Your task to perform on an android device: Search for vegetarian restaurants on Maps Image 0: 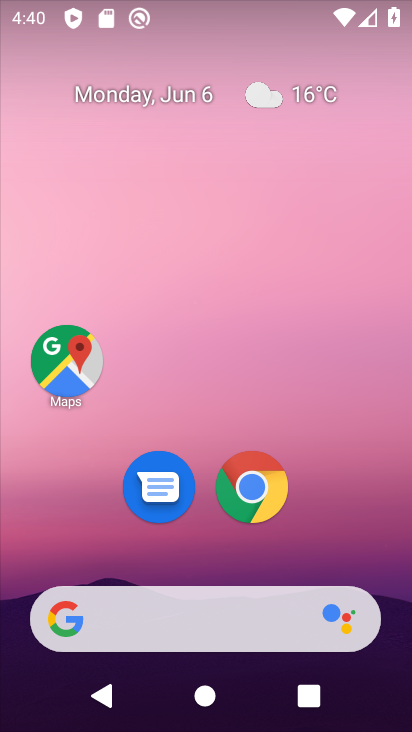
Step 0: click (80, 370)
Your task to perform on an android device: Search for vegetarian restaurants on Maps Image 1: 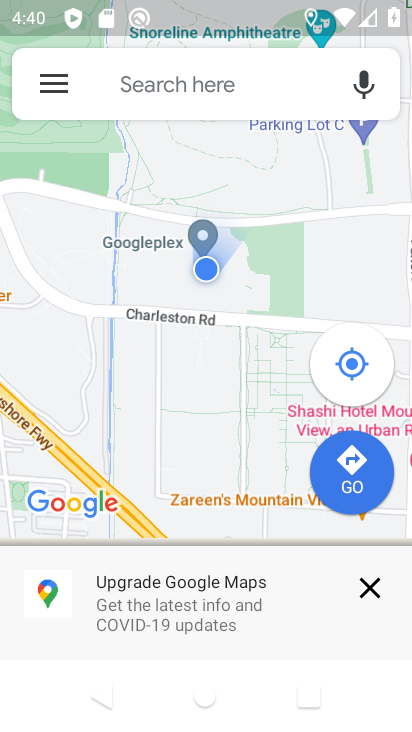
Step 1: click (217, 75)
Your task to perform on an android device: Search for vegetarian restaurants on Maps Image 2: 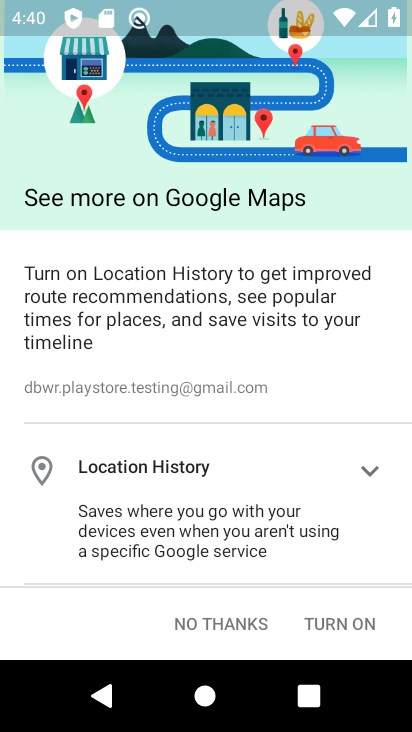
Step 2: click (237, 616)
Your task to perform on an android device: Search for vegetarian restaurants on Maps Image 3: 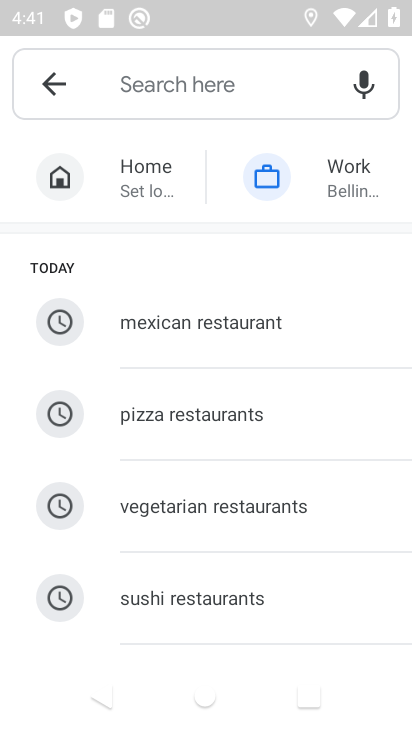
Step 3: click (234, 90)
Your task to perform on an android device: Search for vegetarian restaurants on Maps Image 4: 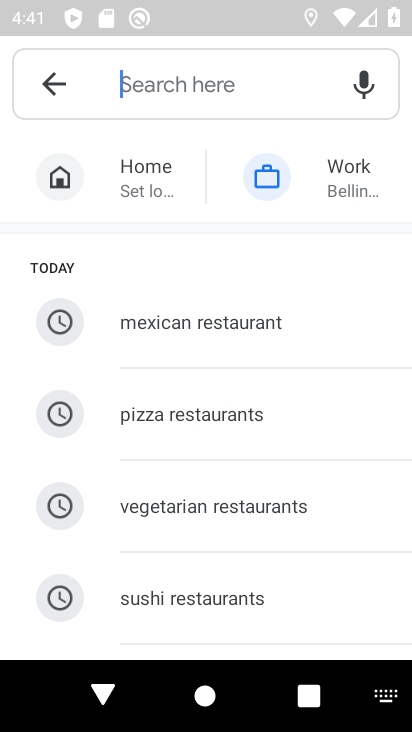
Step 4: click (255, 511)
Your task to perform on an android device: Search for vegetarian restaurants on Maps Image 5: 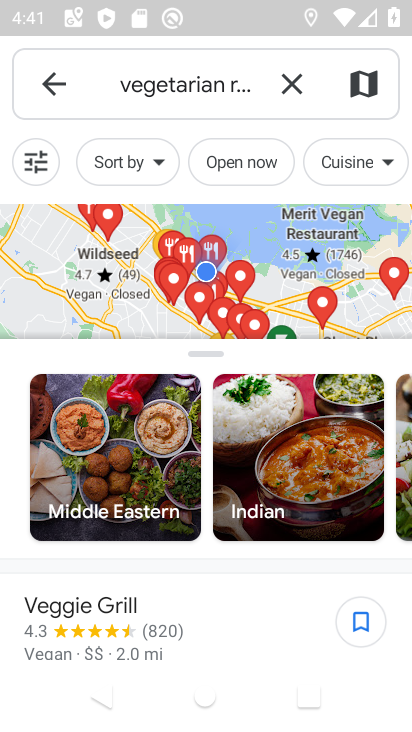
Step 5: task complete